Your task to perform on an android device: Open the calendar and show me this week's events? Image 0: 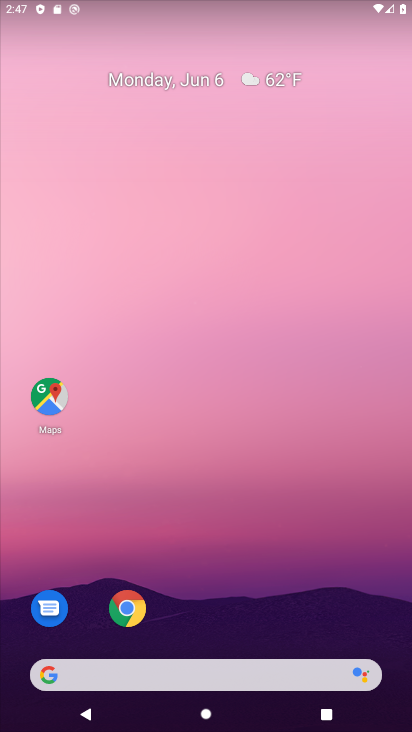
Step 0: drag from (207, 596) to (313, 6)
Your task to perform on an android device: Open the calendar and show me this week's events? Image 1: 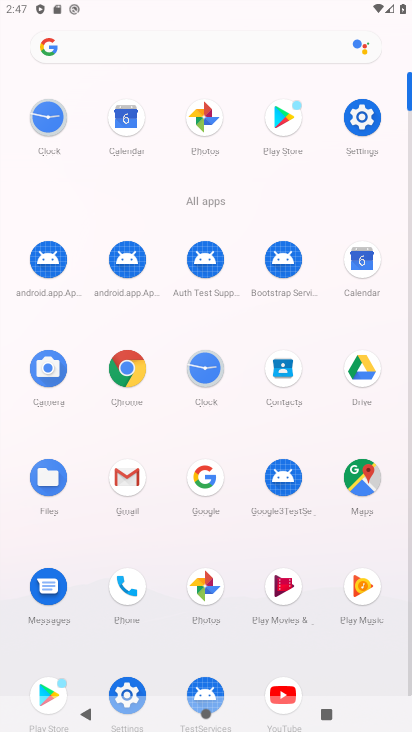
Step 1: click (363, 261)
Your task to perform on an android device: Open the calendar and show me this week's events? Image 2: 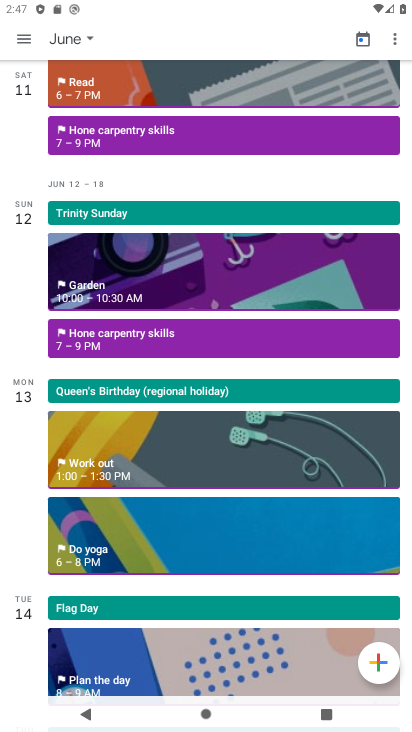
Step 2: click (72, 32)
Your task to perform on an android device: Open the calendar and show me this week's events? Image 3: 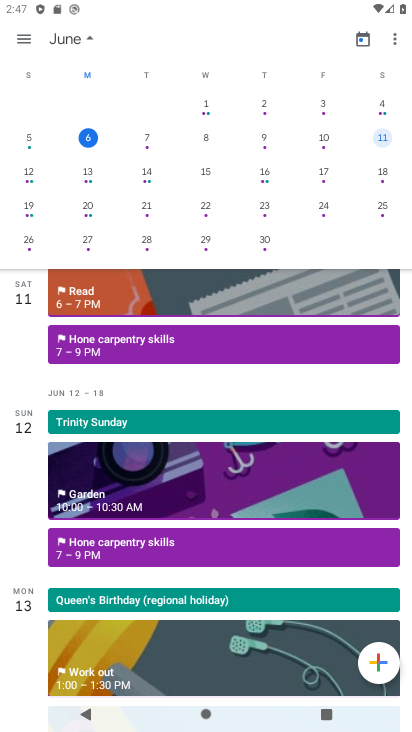
Step 3: click (83, 137)
Your task to perform on an android device: Open the calendar and show me this week's events? Image 4: 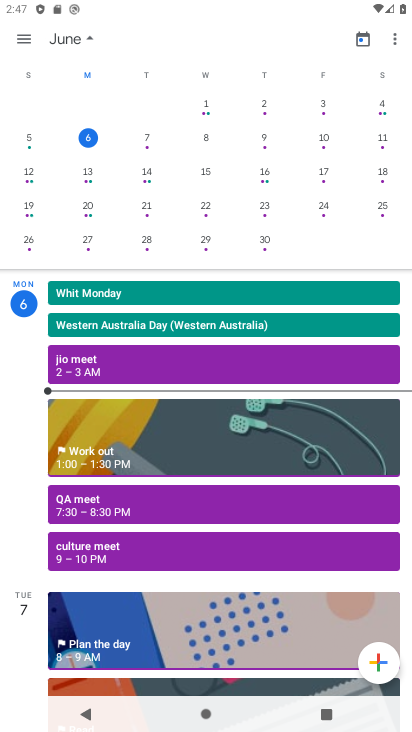
Step 4: click (122, 1)
Your task to perform on an android device: Open the calendar and show me this week's events? Image 5: 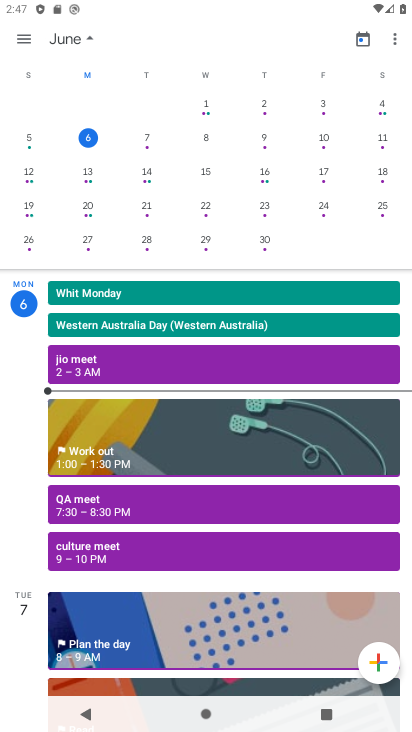
Step 5: task complete